Your task to perform on an android device: turn off airplane mode Image 0: 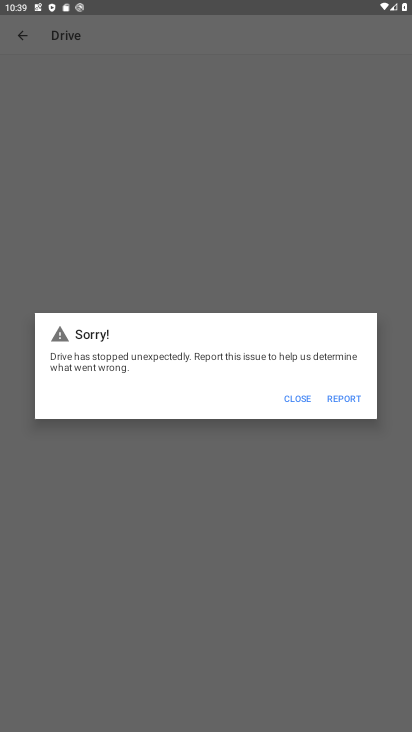
Step 0: press home button
Your task to perform on an android device: turn off airplane mode Image 1: 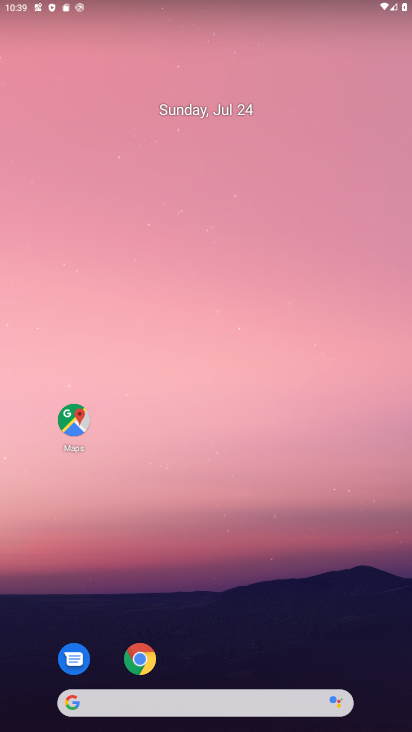
Step 1: drag from (192, 702) to (266, 8)
Your task to perform on an android device: turn off airplane mode Image 2: 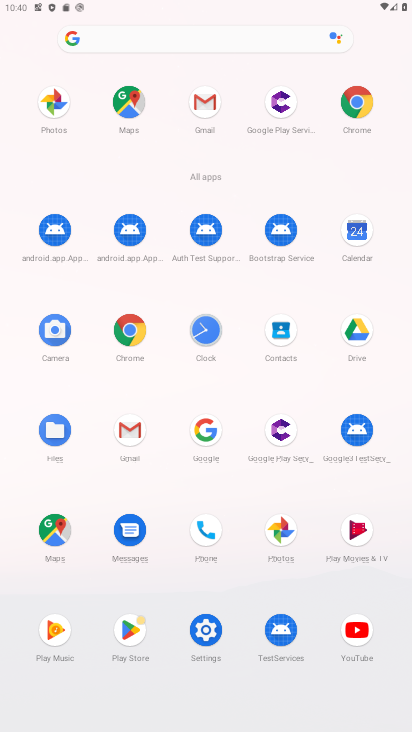
Step 2: click (206, 630)
Your task to perform on an android device: turn off airplane mode Image 3: 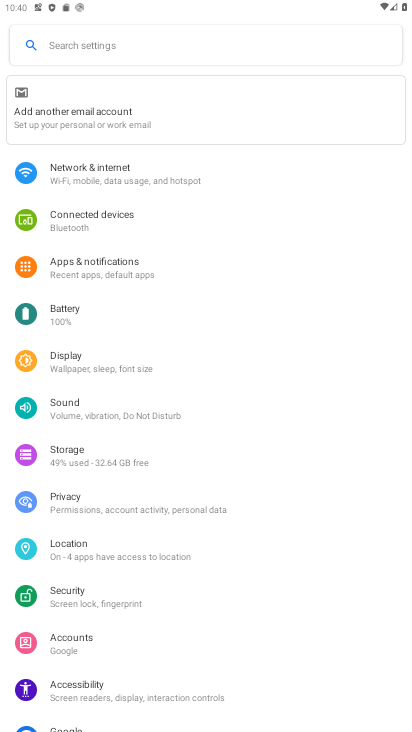
Step 3: click (121, 177)
Your task to perform on an android device: turn off airplane mode Image 4: 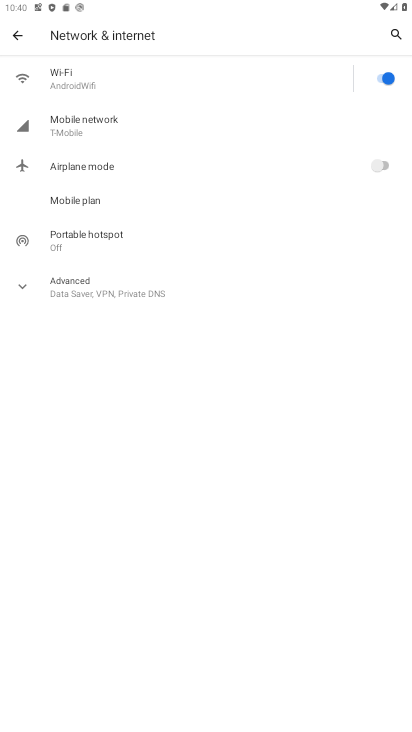
Step 4: task complete